Your task to perform on an android device: add a contact in the contacts app Image 0: 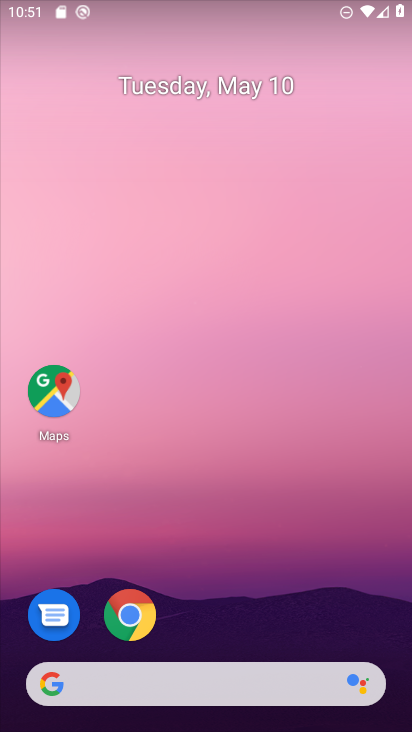
Step 0: drag from (193, 633) to (240, 248)
Your task to perform on an android device: add a contact in the contacts app Image 1: 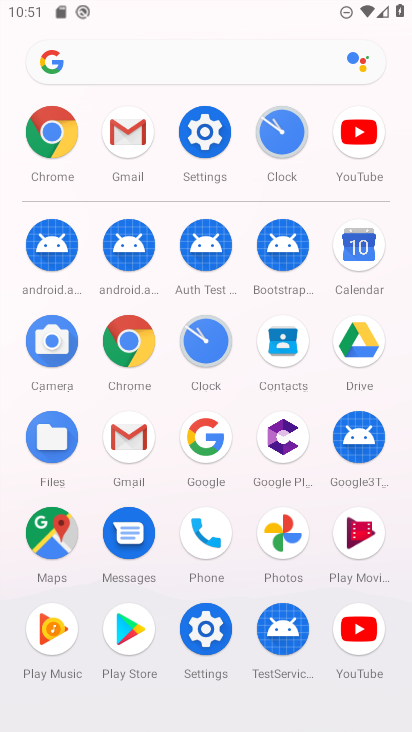
Step 1: click (289, 334)
Your task to perform on an android device: add a contact in the contacts app Image 2: 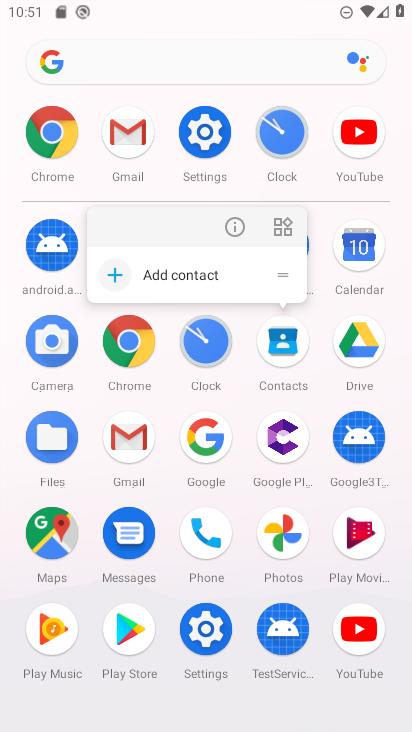
Step 2: click (229, 234)
Your task to perform on an android device: add a contact in the contacts app Image 3: 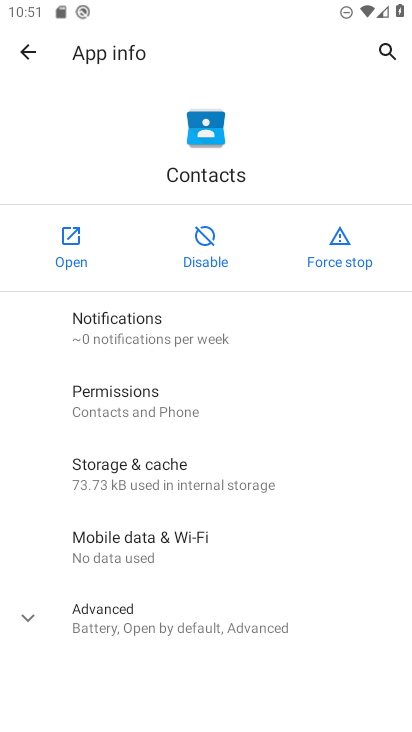
Step 3: click (80, 249)
Your task to perform on an android device: add a contact in the contacts app Image 4: 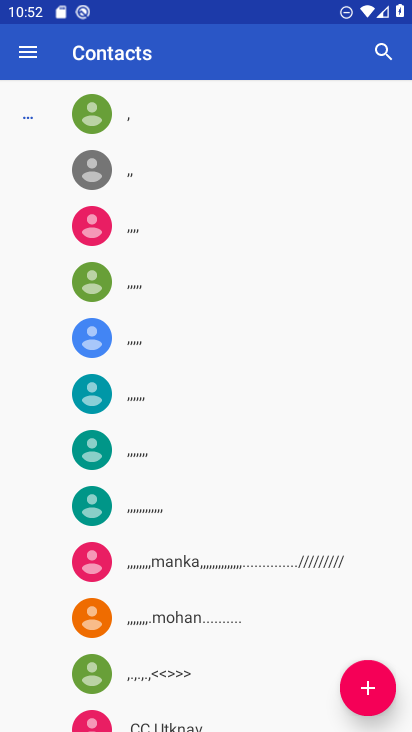
Step 4: click (373, 685)
Your task to perform on an android device: add a contact in the contacts app Image 5: 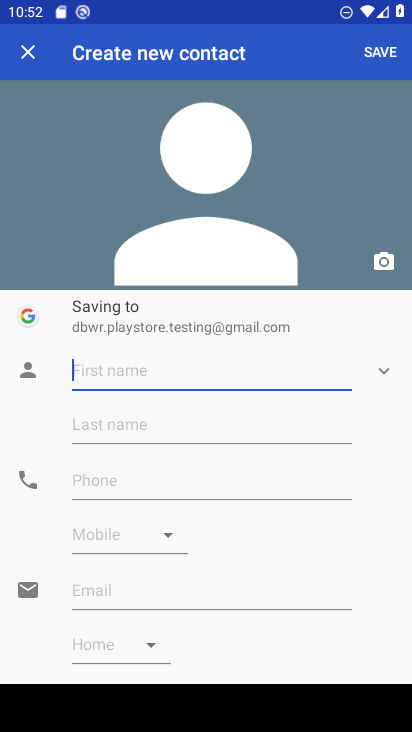
Step 5: click (103, 374)
Your task to perform on an android device: add a contact in the contacts app Image 6: 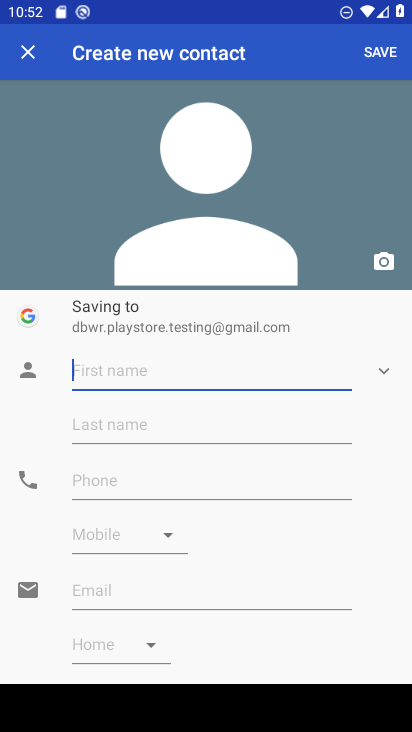
Step 6: type "majzk"
Your task to perform on an android device: add a contact in the contacts app Image 7: 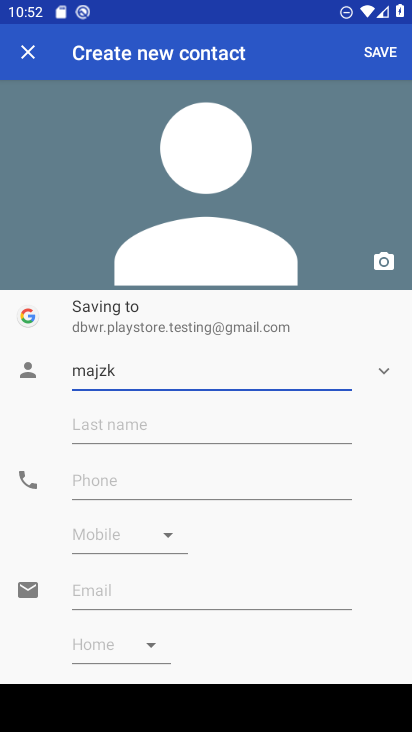
Step 7: click (374, 56)
Your task to perform on an android device: add a contact in the contacts app Image 8: 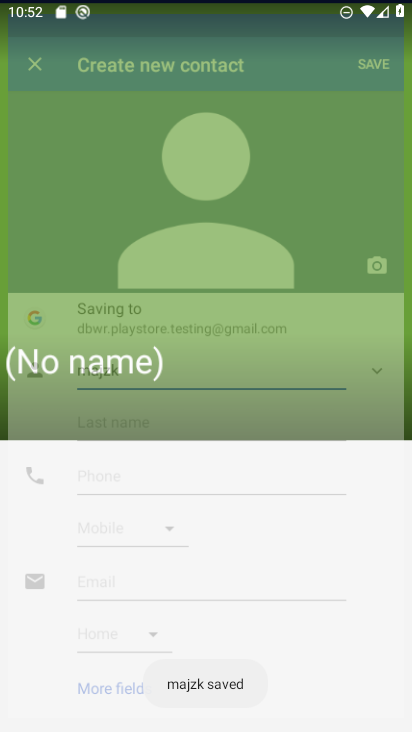
Step 8: task complete